Your task to perform on an android device: Search for seafood restaurants on Google Maps Image 0: 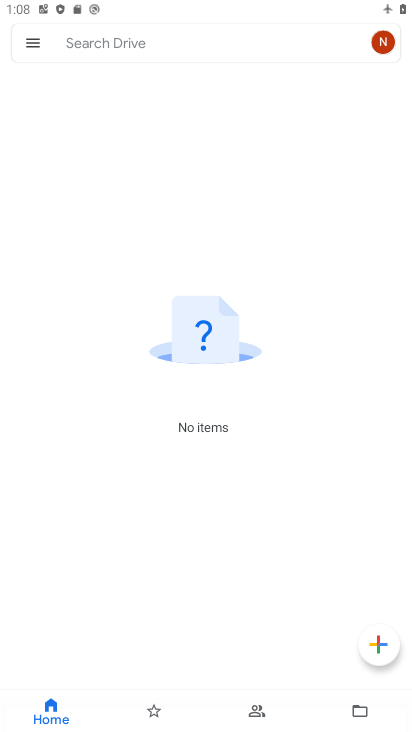
Step 0: press home button
Your task to perform on an android device: Search for seafood restaurants on Google Maps Image 1: 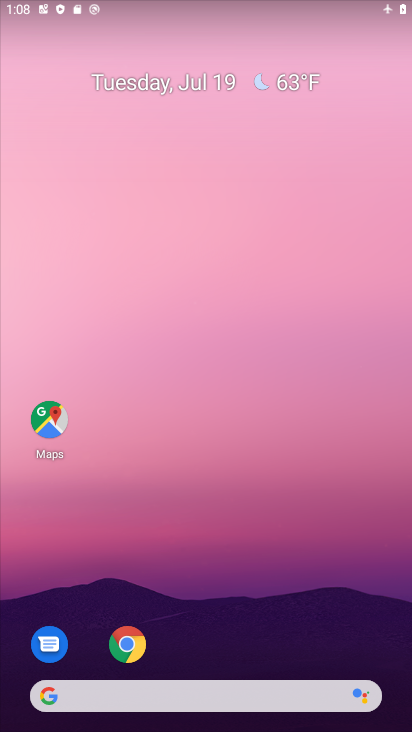
Step 1: drag from (218, 725) to (205, 236)
Your task to perform on an android device: Search for seafood restaurants on Google Maps Image 2: 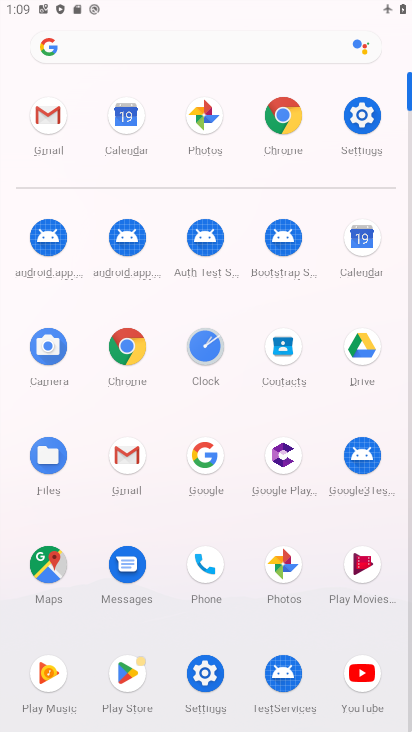
Step 2: click (45, 566)
Your task to perform on an android device: Search for seafood restaurants on Google Maps Image 3: 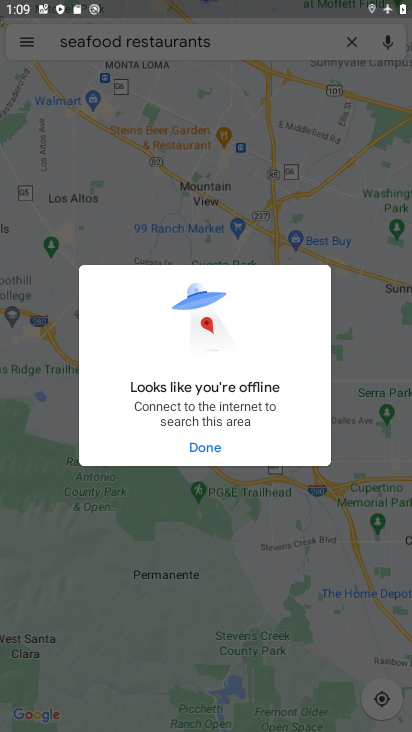
Step 3: click (206, 446)
Your task to perform on an android device: Search for seafood restaurants on Google Maps Image 4: 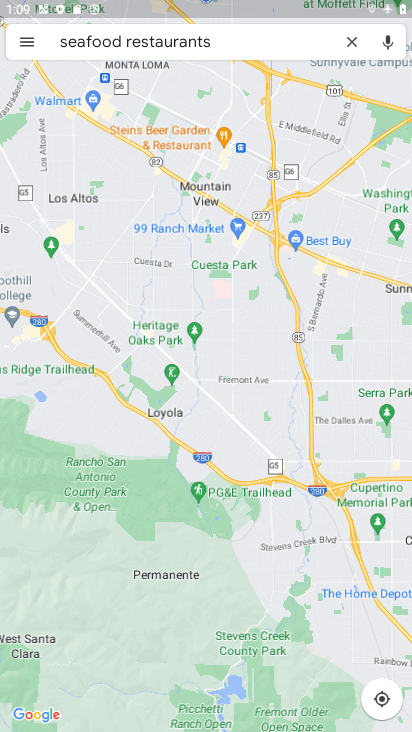
Step 4: click (225, 39)
Your task to perform on an android device: Search for seafood restaurants on Google Maps Image 5: 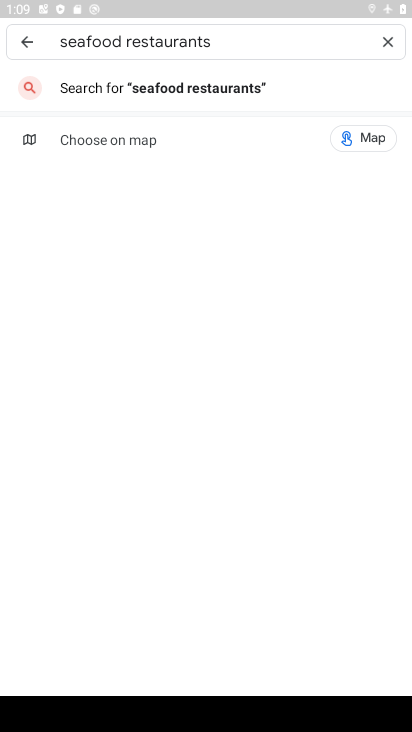
Step 5: task complete